Your task to perform on an android device: delete browsing data in the chrome app Image 0: 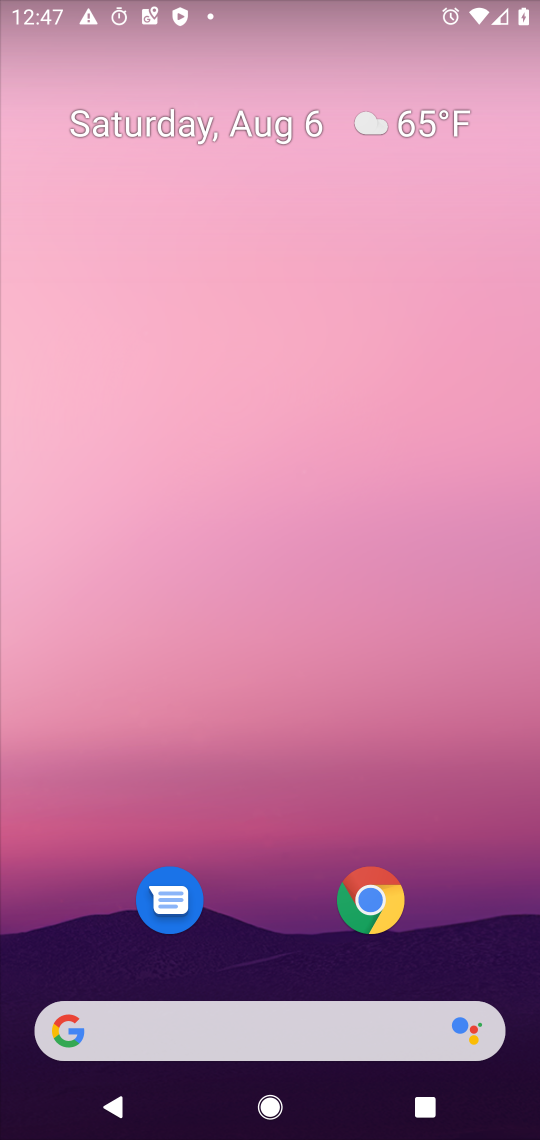
Step 0: click (375, 903)
Your task to perform on an android device: delete browsing data in the chrome app Image 1: 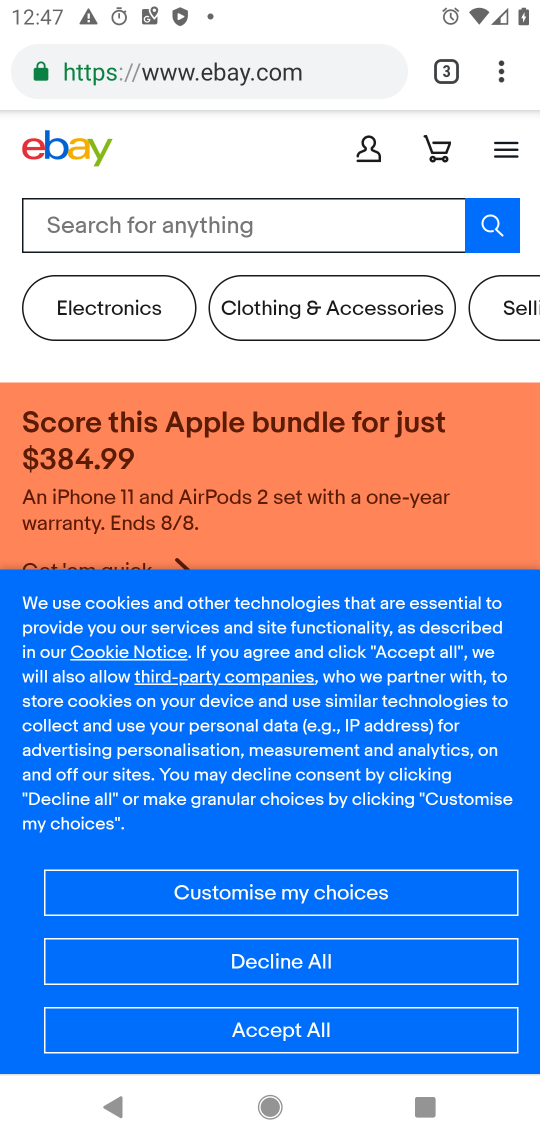
Step 1: click (500, 81)
Your task to perform on an android device: delete browsing data in the chrome app Image 2: 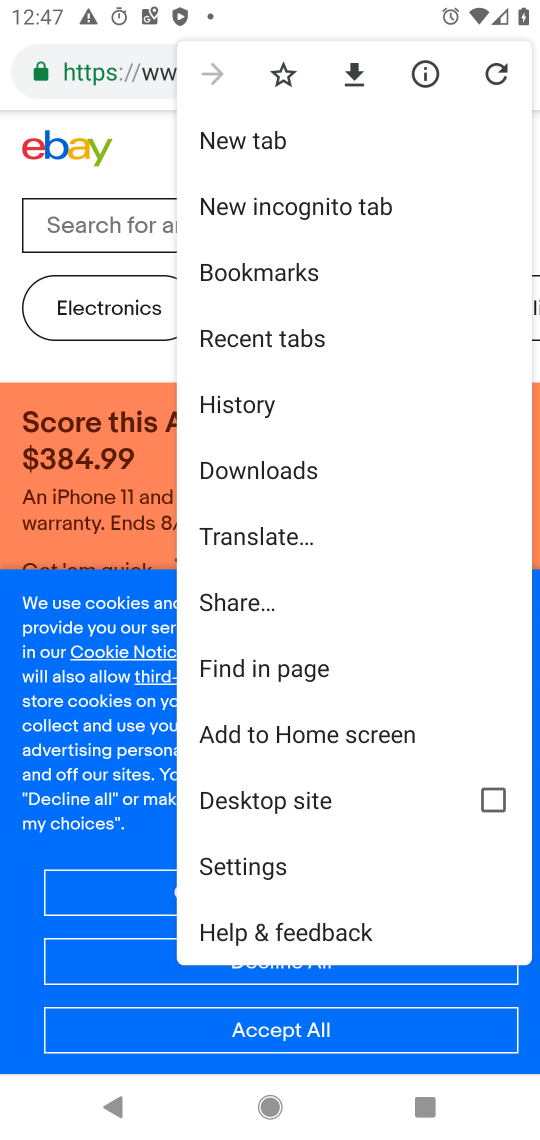
Step 2: click (239, 405)
Your task to perform on an android device: delete browsing data in the chrome app Image 3: 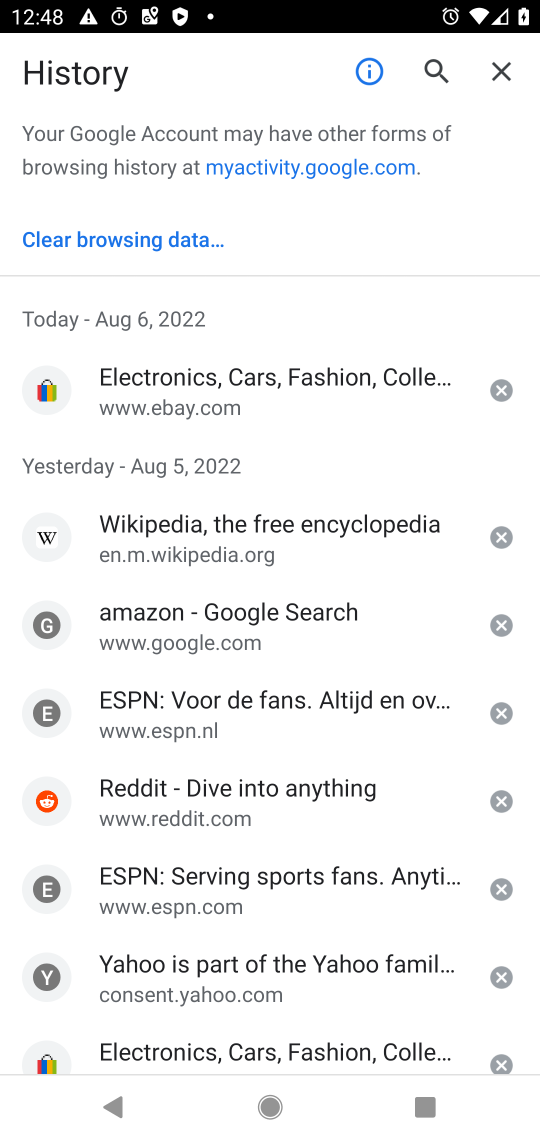
Step 3: click (121, 230)
Your task to perform on an android device: delete browsing data in the chrome app Image 4: 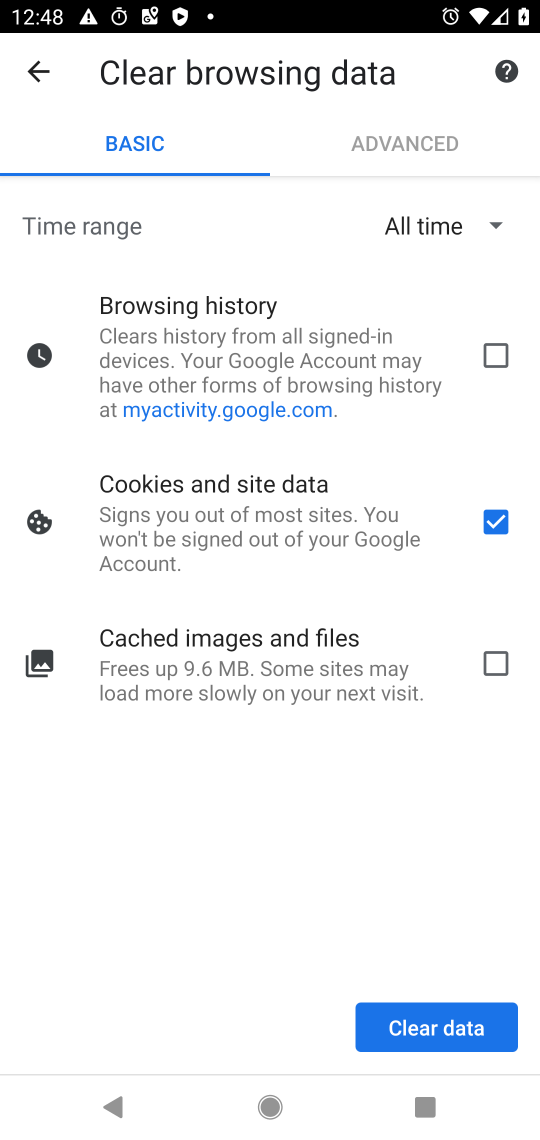
Step 4: click (484, 522)
Your task to perform on an android device: delete browsing data in the chrome app Image 5: 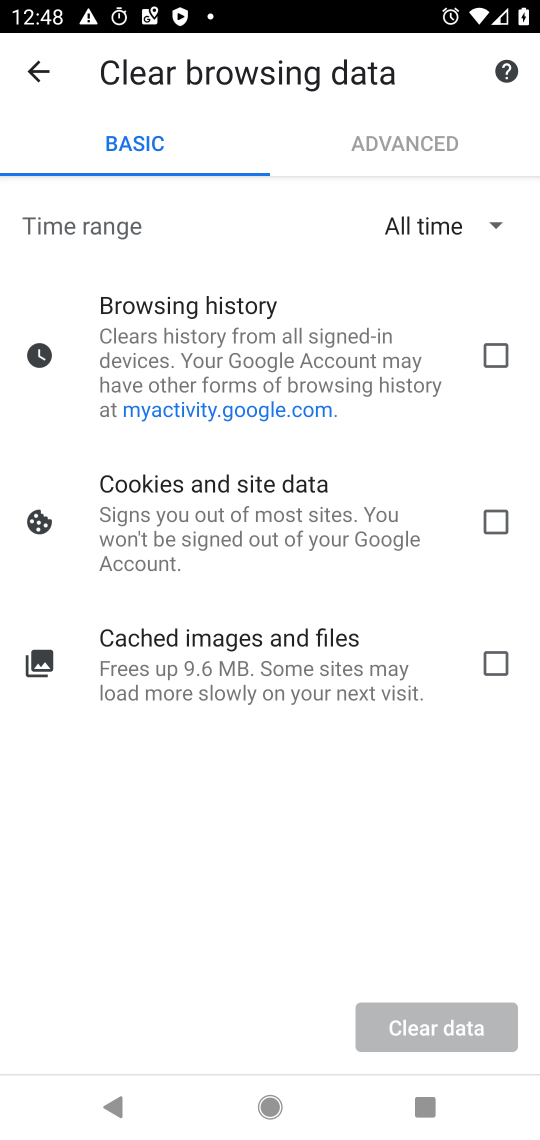
Step 5: click (494, 355)
Your task to perform on an android device: delete browsing data in the chrome app Image 6: 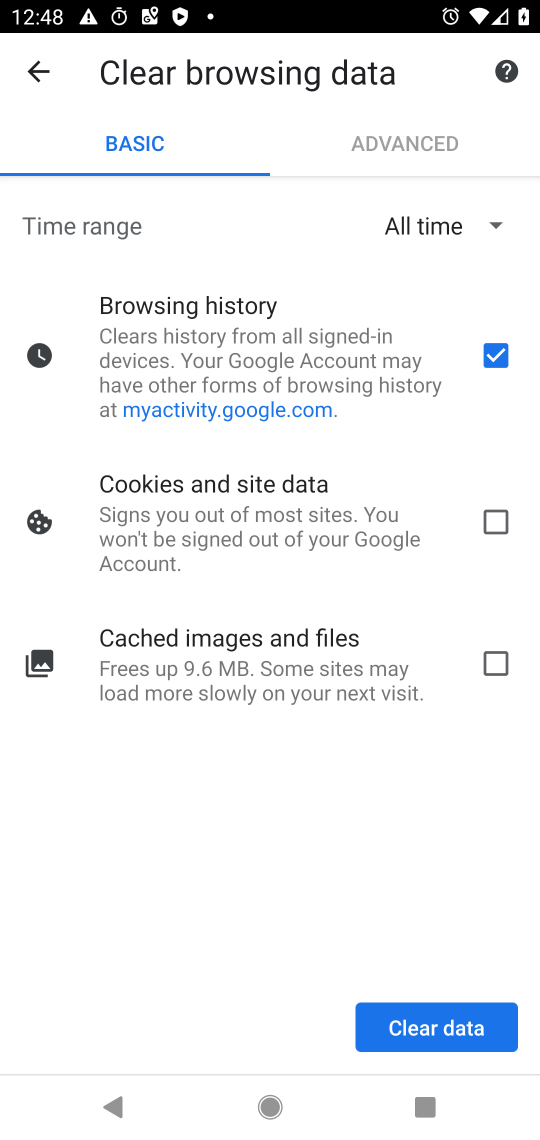
Step 6: click (425, 1023)
Your task to perform on an android device: delete browsing data in the chrome app Image 7: 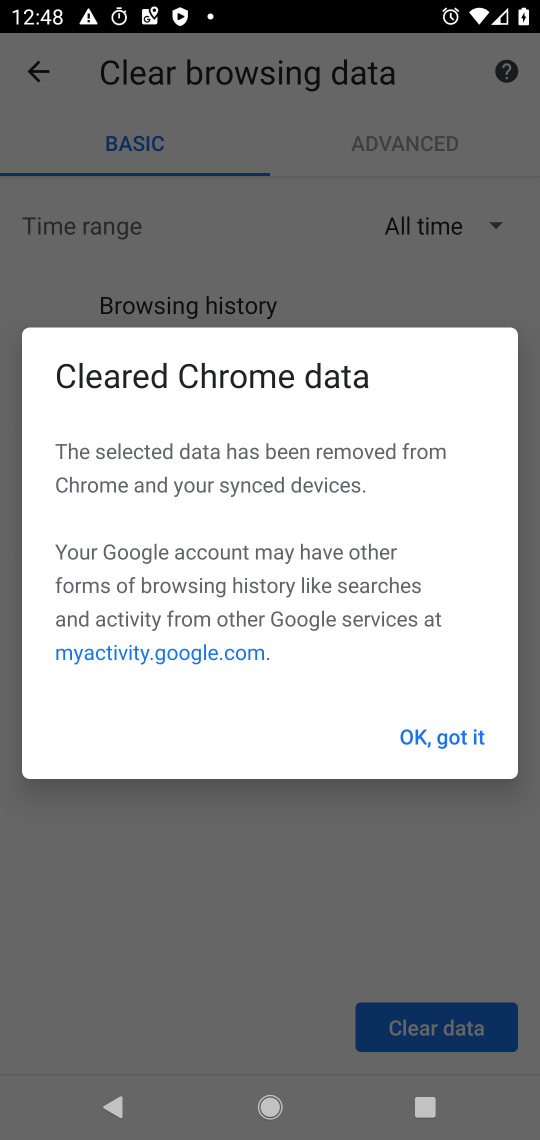
Step 7: click (429, 738)
Your task to perform on an android device: delete browsing data in the chrome app Image 8: 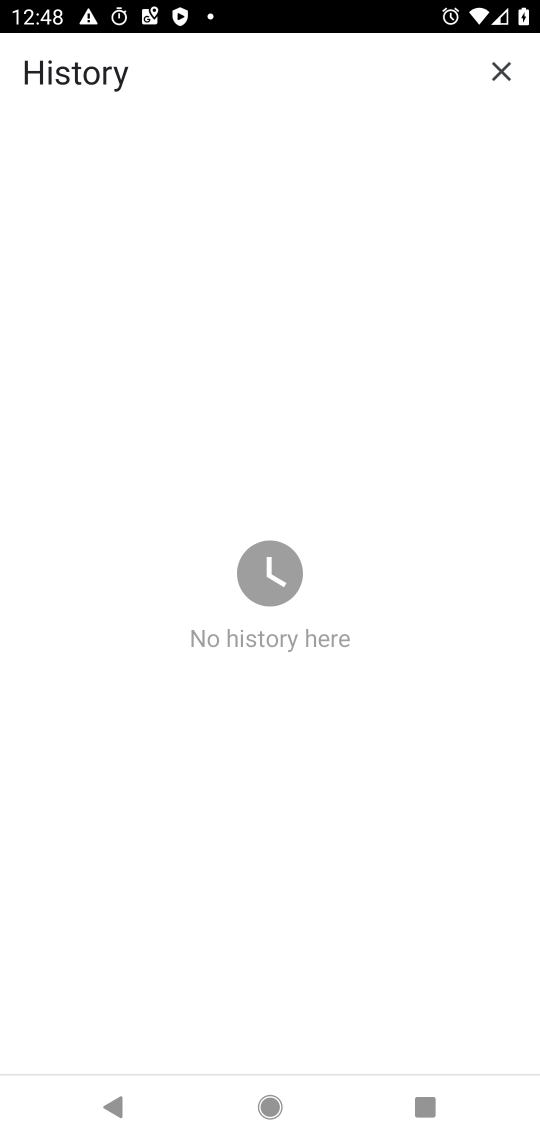
Step 8: task complete